Your task to perform on an android device: Do I have any events today? Image 0: 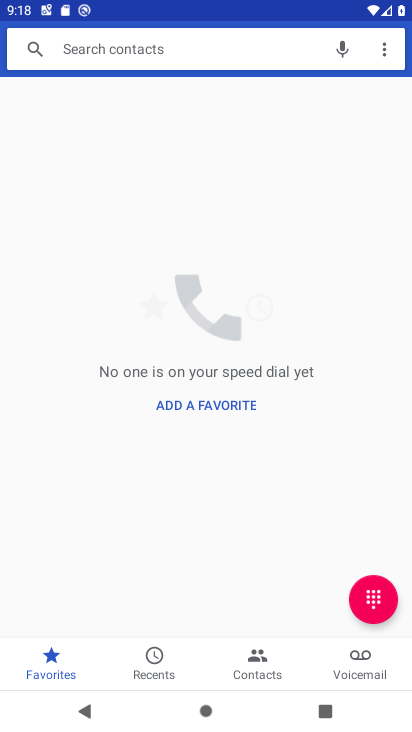
Step 0: press home button
Your task to perform on an android device: Do I have any events today? Image 1: 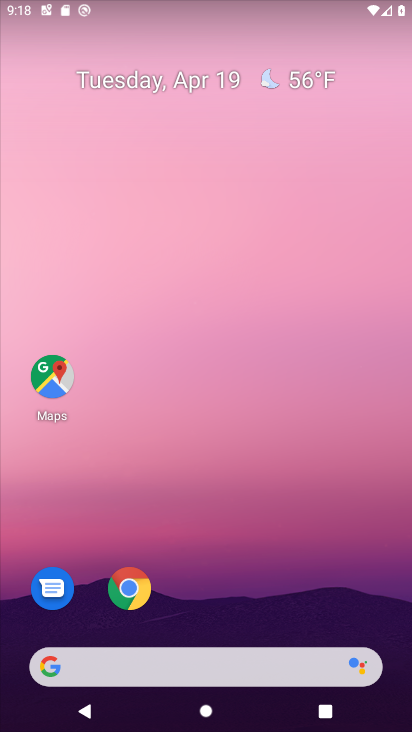
Step 1: drag from (209, 620) to (221, 8)
Your task to perform on an android device: Do I have any events today? Image 2: 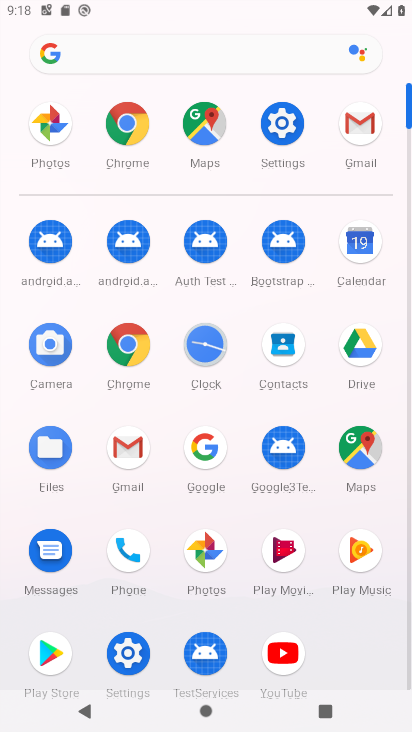
Step 2: click (359, 238)
Your task to perform on an android device: Do I have any events today? Image 3: 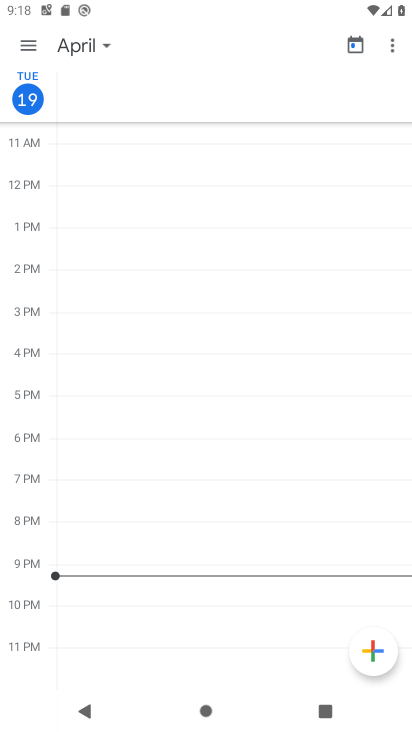
Step 3: click (22, 43)
Your task to perform on an android device: Do I have any events today? Image 4: 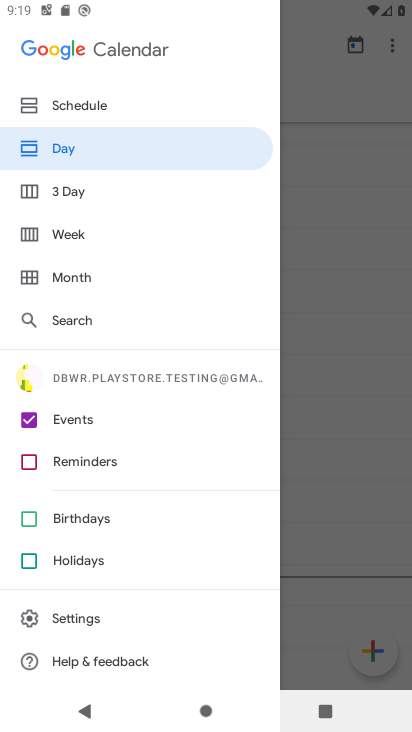
Step 4: click (58, 233)
Your task to perform on an android device: Do I have any events today? Image 5: 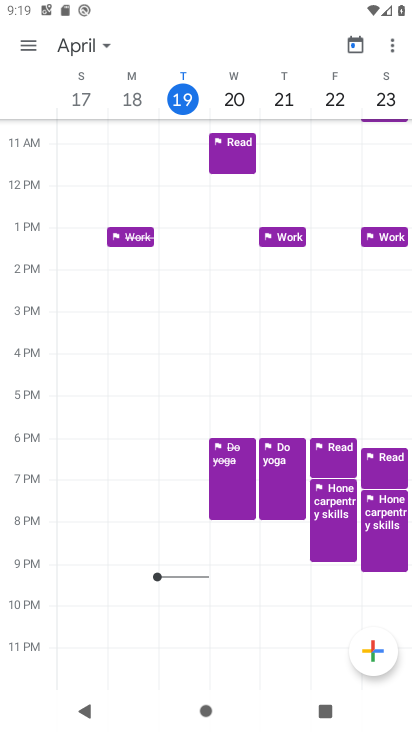
Step 5: click (186, 100)
Your task to perform on an android device: Do I have any events today? Image 6: 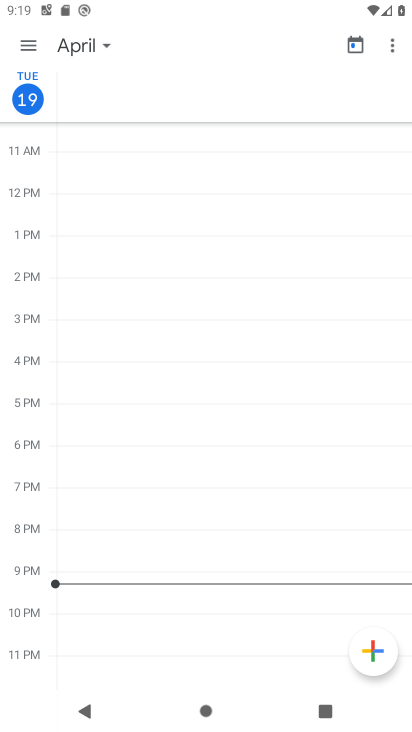
Step 6: task complete